Your task to perform on an android device: Open settings Image 0: 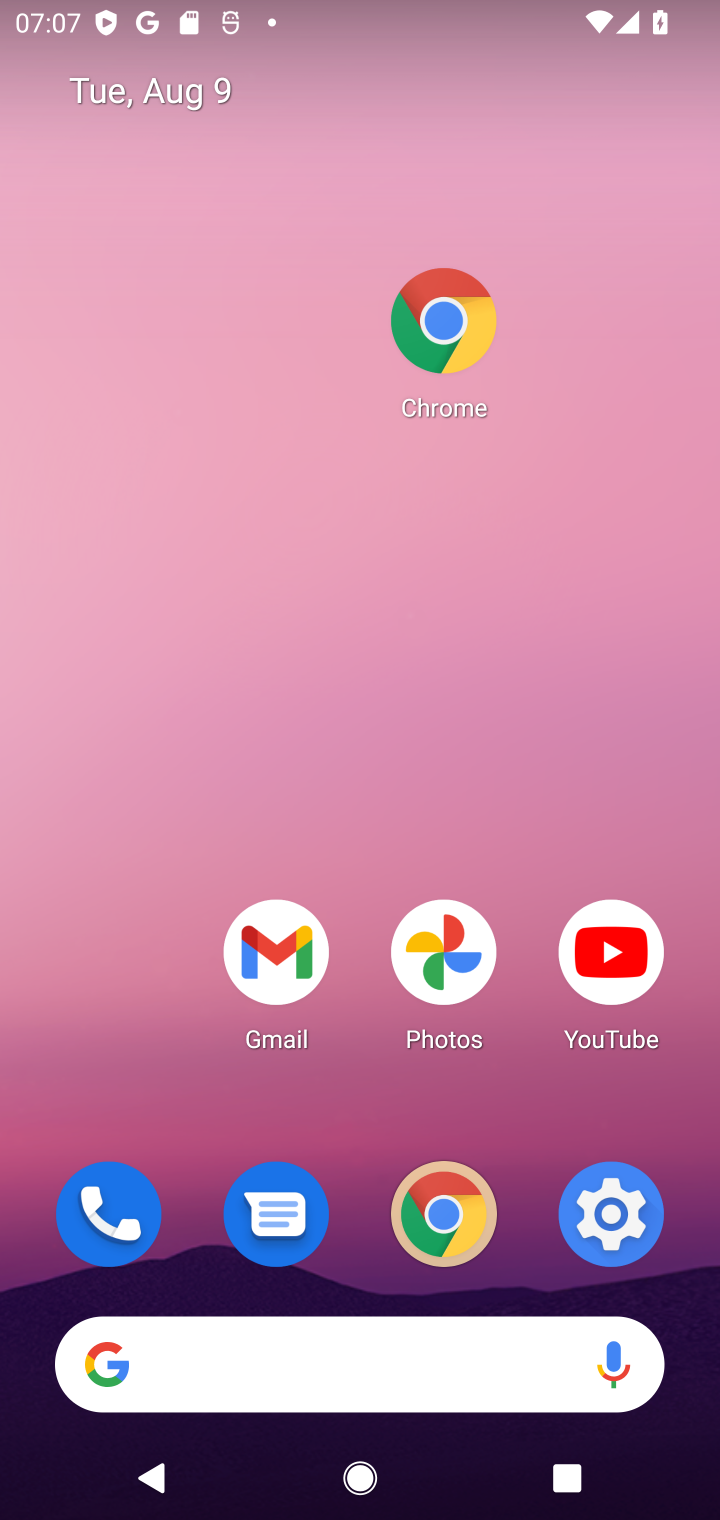
Step 0: press home button
Your task to perform on an android device: Open settings Image 1: 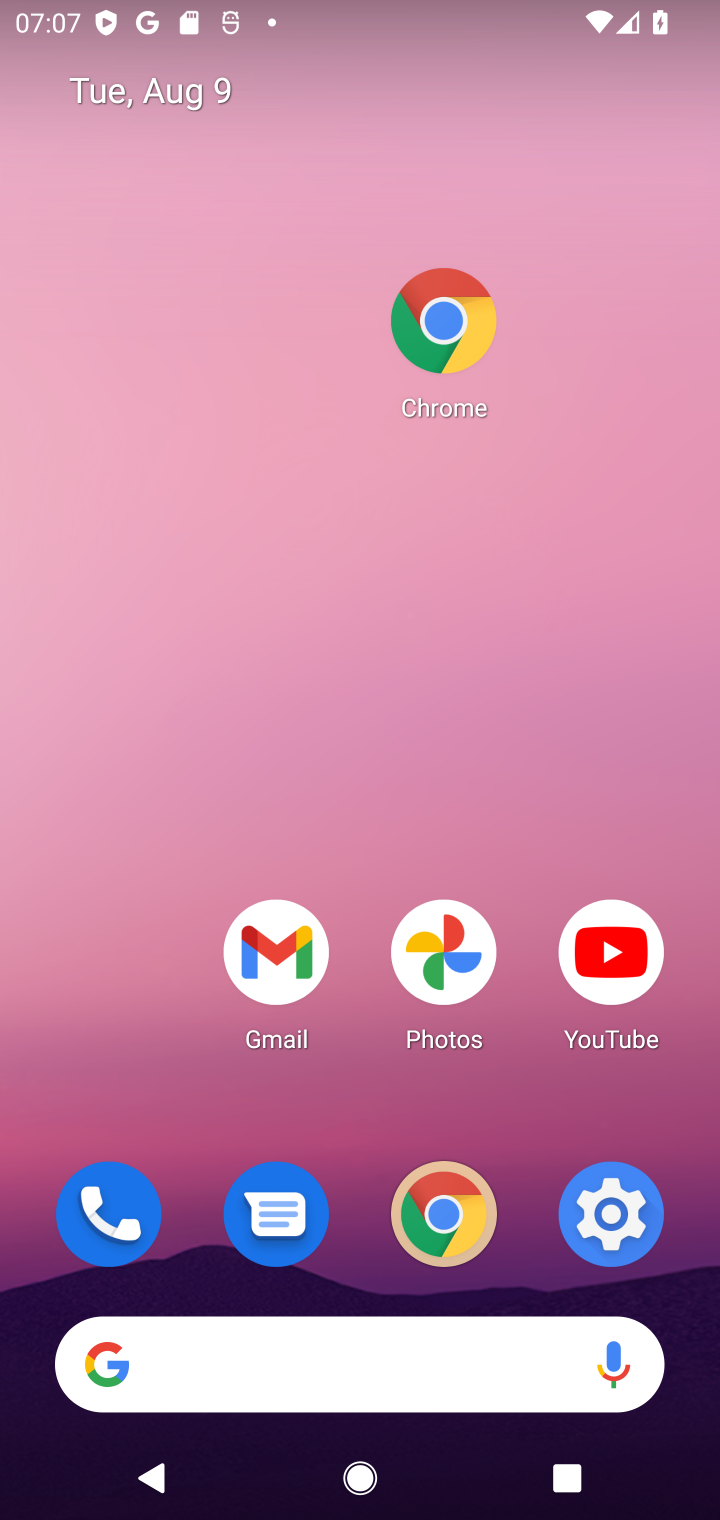
Step 1: drag from (482, 1387) to (465, 311)
Your task to perform on an android device: Open settings Image 2: 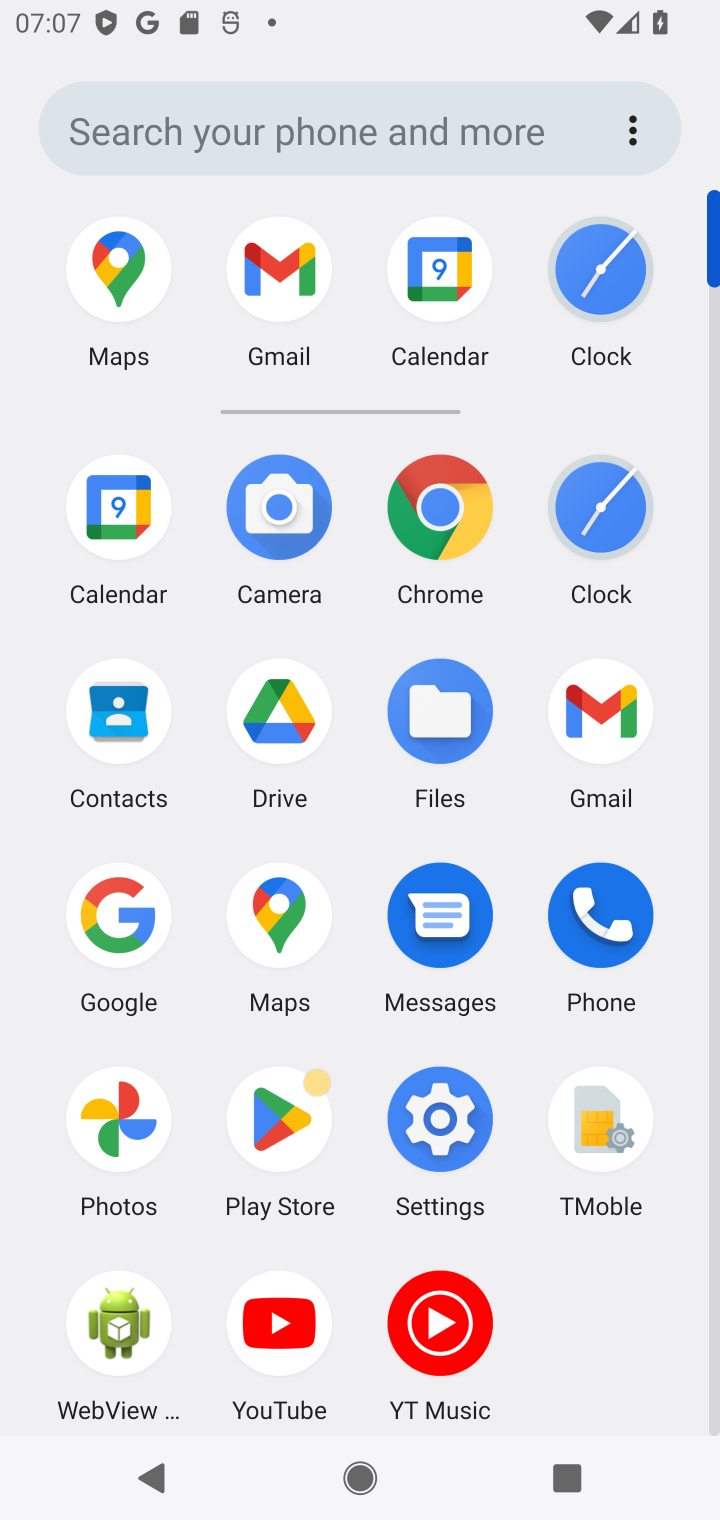
Step 2: click (432, 1103)
Your task to perform on an android device: Open settings Image 3: 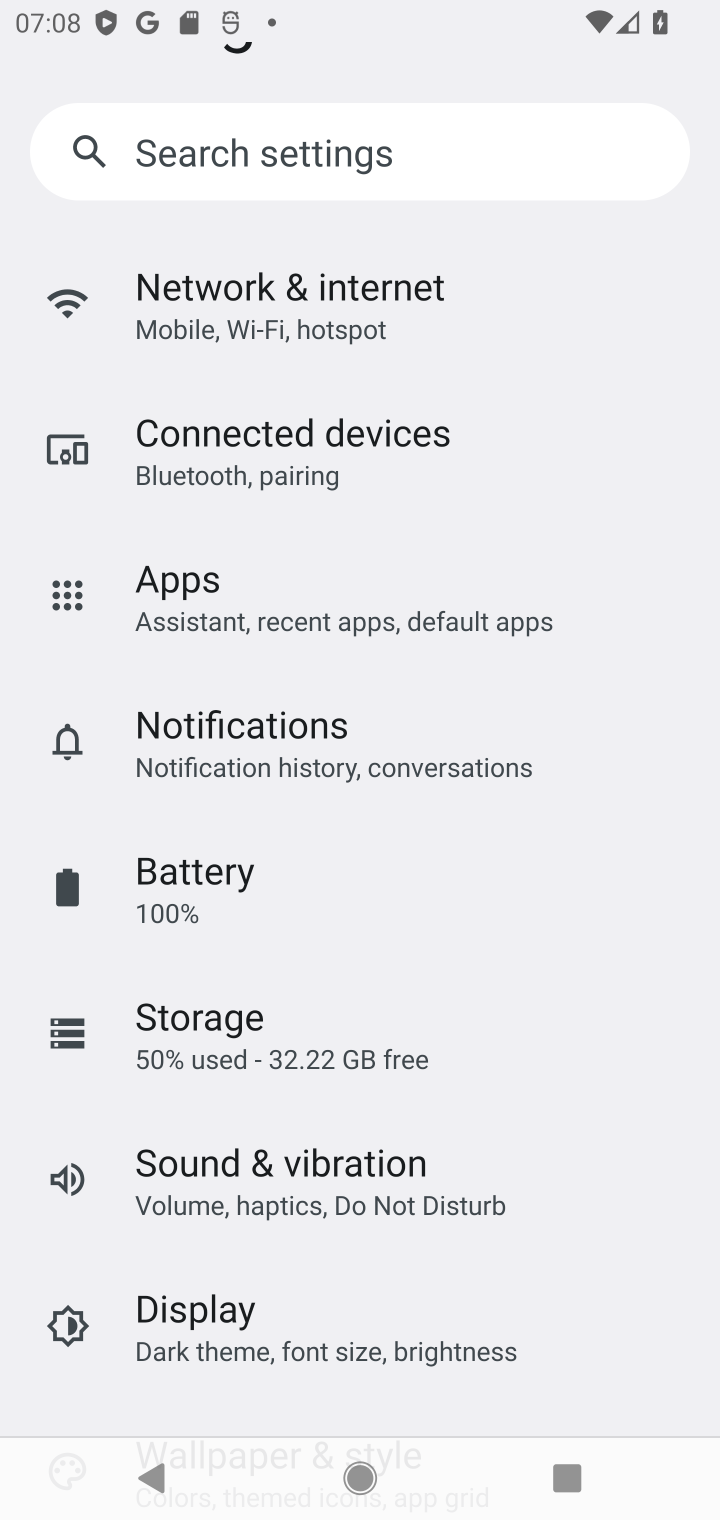
Step 3: task complete